Your task to perform on an android device: Open ESPN.com Image 0: 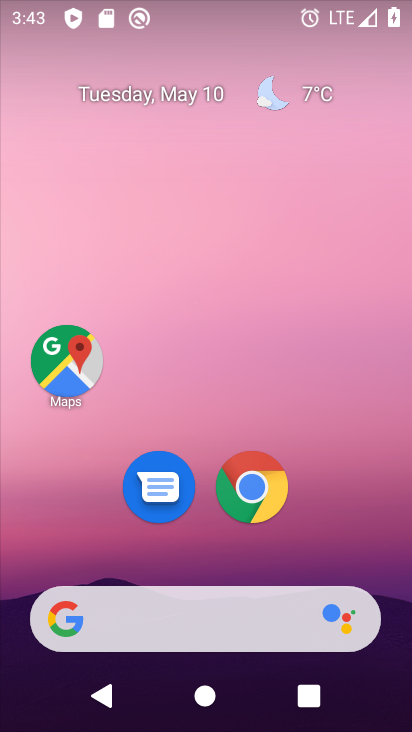
Step 0: click (257, 486)
Your task to perform on an android device: Open ESPN.com Image 1: 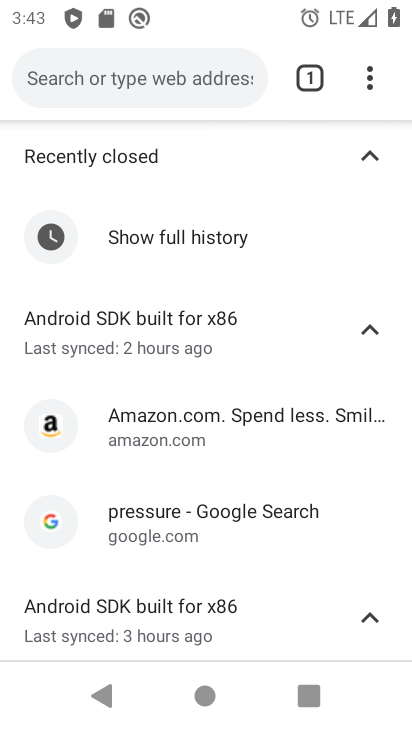
Step 1: click (195, 76)
Your task to perform on an android device: Open ESPN.com Image 2: 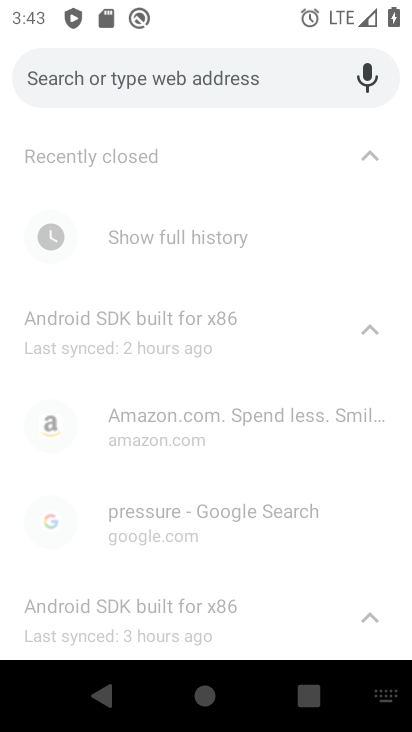
Step 2: type "espn"
Your task to perform on an android device: Open ESPN.com Image 3: 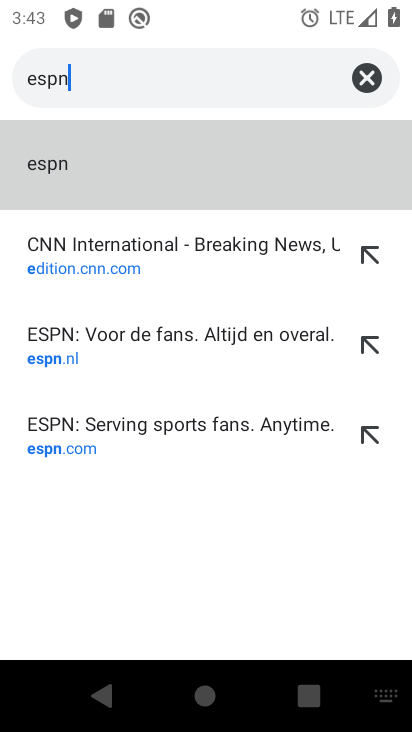
Step 3: type ""
Your task to perform on an android device: Open ESPN.com Image 4: 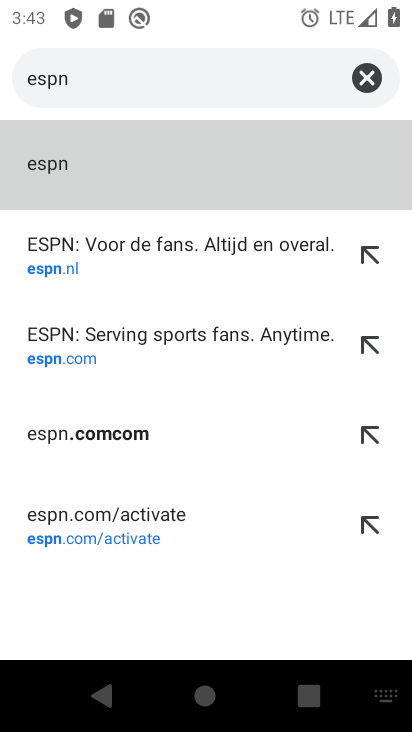
Step 4: click (47, 179)
Your task to perform on an android device: Open ESPN.com Image 5: 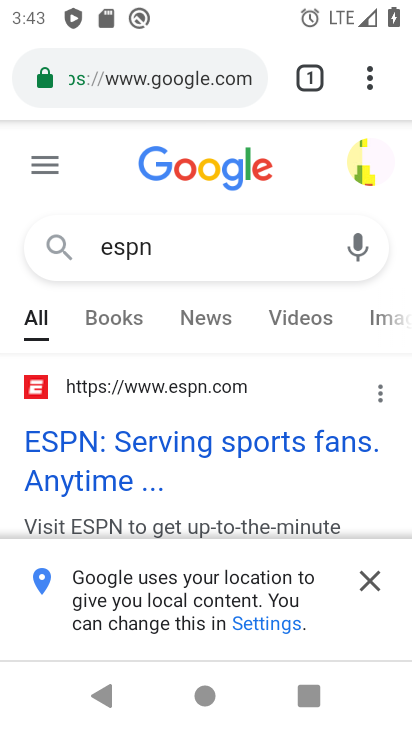
Step 5: click (151, 432)
Your task to perform on an android device: Open ESPN.com Image 6: 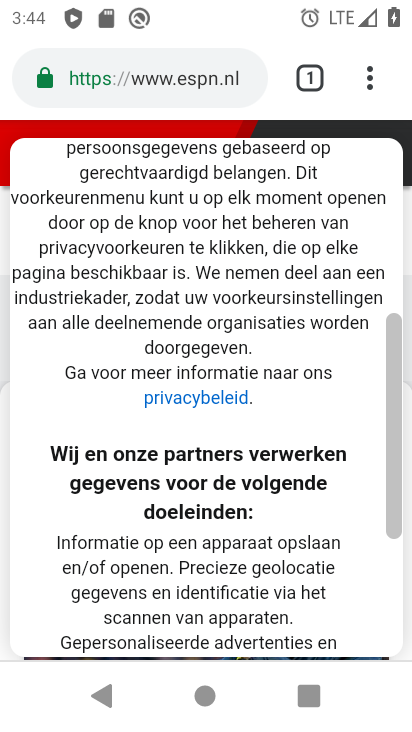
Step 6: task complete